Your task to perform on an android device: Open location settings Image 0: 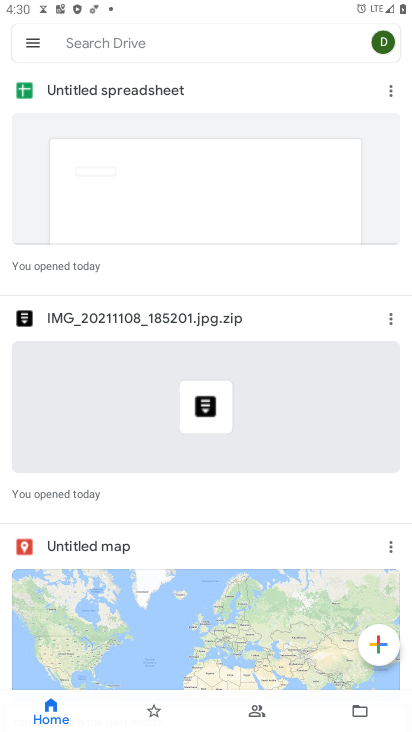
Step 0: press home button
Your task to perform on an android device: Open location settings Image 1: 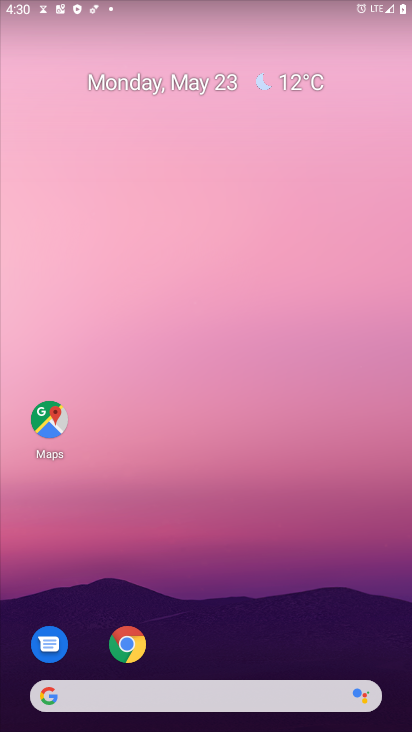
Step 1: drag from (193, 637) to (105, 149)
Your task to perform on an android device: Open location settings Image 2: 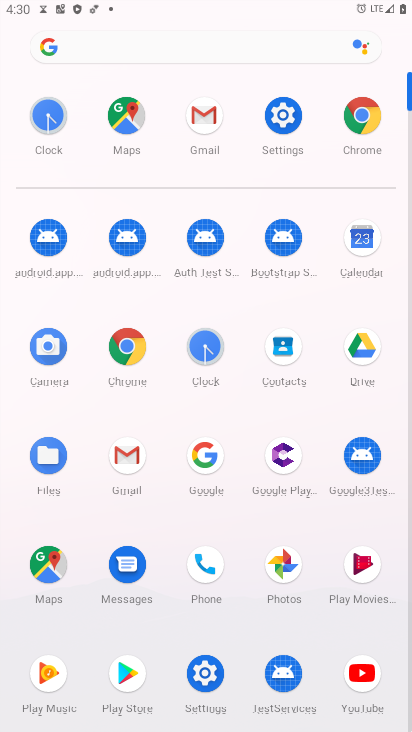
Step 2: click (279, 113)
Your task to perform on an android device: Open location settings Image 3: 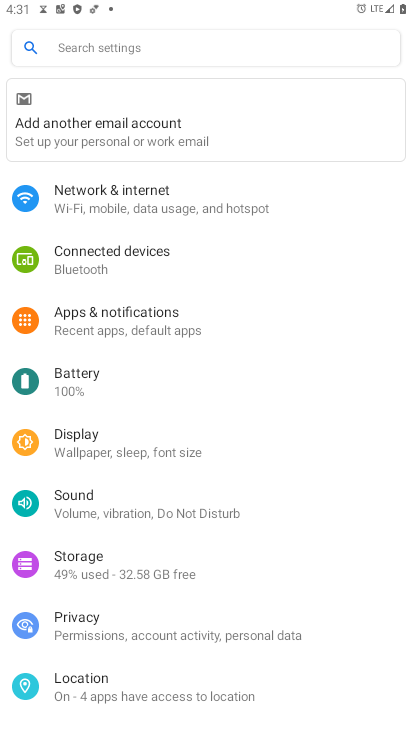
Step 3: click (196, 684)
Your task to perform on an android device: Open location settings Image 4: 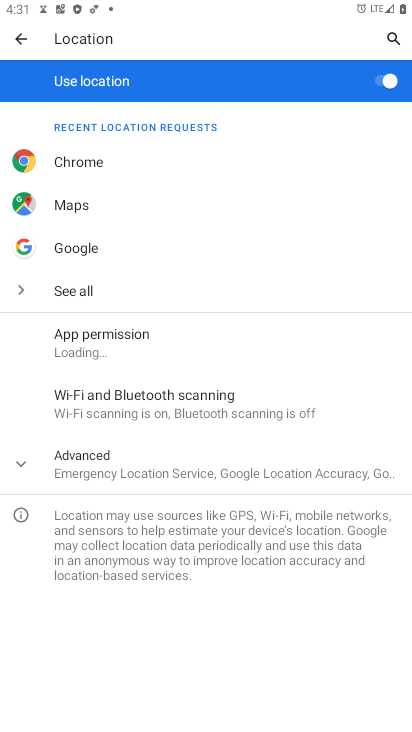
Step 4: task complete